Your task to perform on an android device: Search for "logitech g pro" on bestbuy.com, select the first entry, add it to the cart, then select checkout. Image 0: 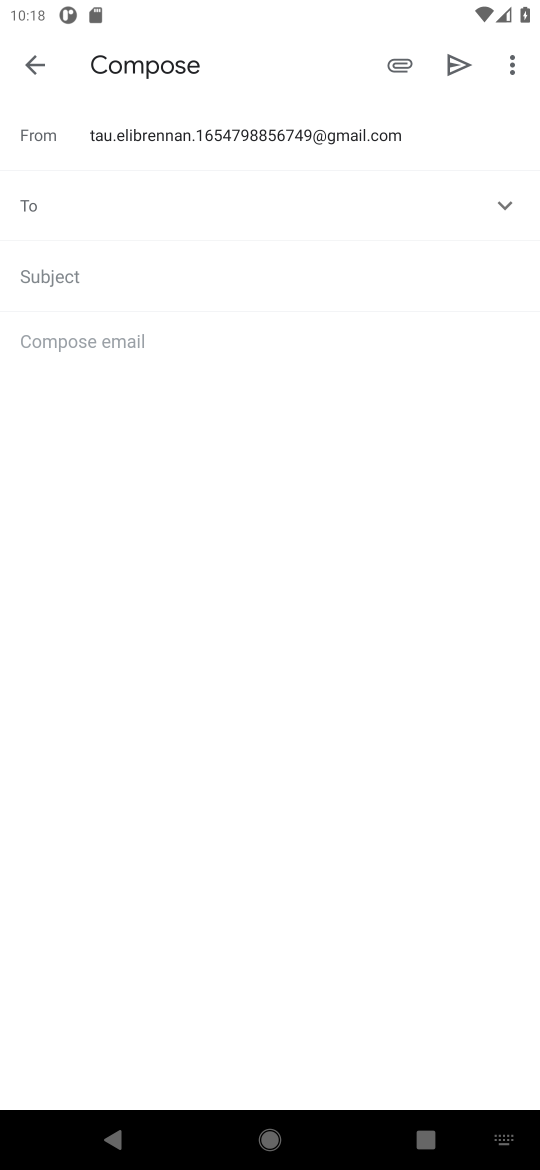
Step 0: press home button
Your task to perform on an android device: Search for "logitech g pro" on bestbuy.com, select the first entry, add it to the cart, then select checkout. Image 1: 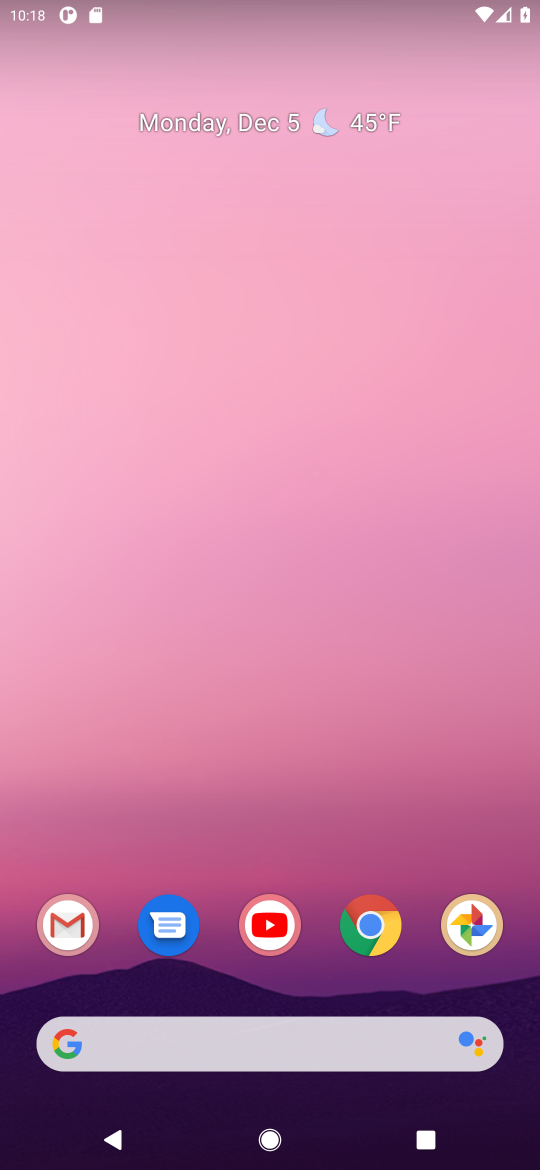
Step 1: click (371, 919)
Your task to perform on an android device: Search for "logitech g pro" on bestbuy.com, select the first entry, add it to the cart, then select checkout. Image 2: 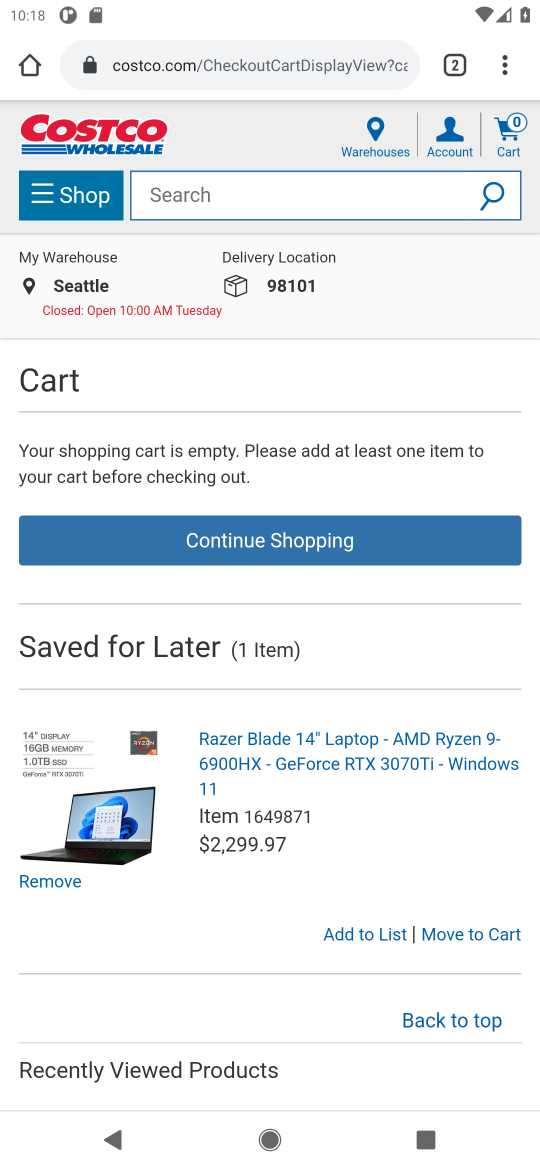
Step 2: click (199, 58)
Your task to perform on an android device: Search for "logitech g pro" on bestbuy.com, select the first entry, add it to the cart, then select checkout. Image 3: 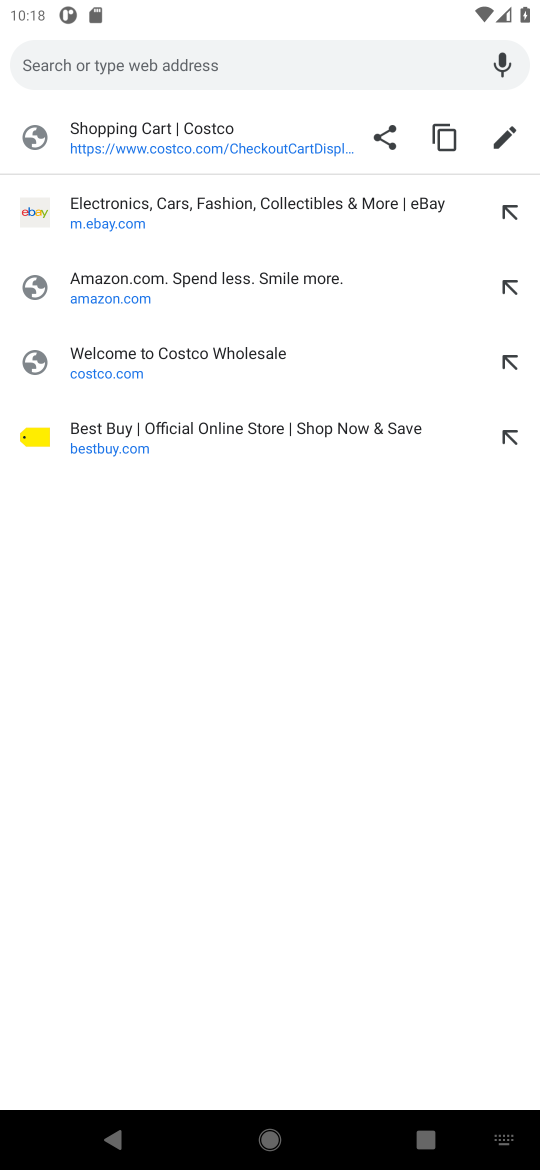
Step 3: click (88, 440)
Your task to perform on an android device: Search for "logitech g pro" on bestbuy.com, select the first entry, add it to the cart, then select checkout. Image 4: 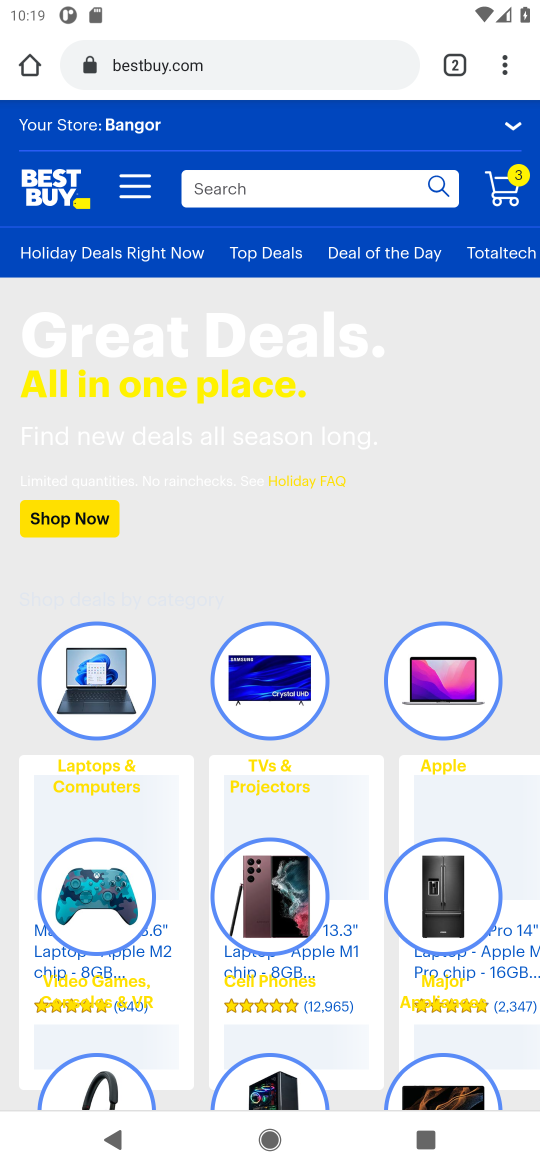
Step 4: click (269, 190)
Your task to perform on an android device: Search for "logitech g pro" on bestbuy.com, select the first entry, add it to the cart, then select checkout. Image 5: 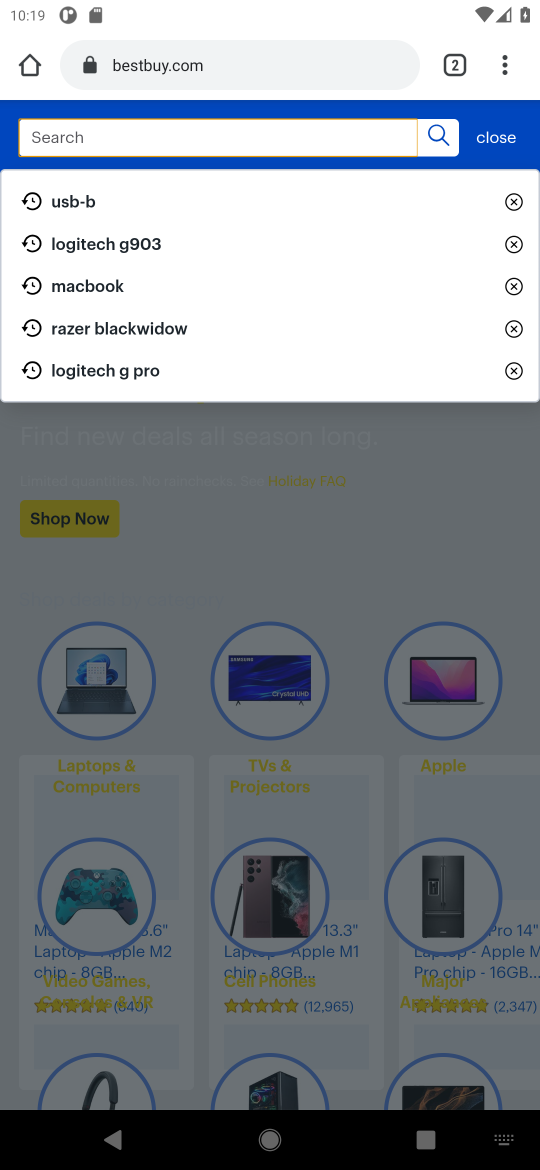
Step 5: type "logitech g pro"
Your task to perform on an android device: Search for "logitech g pro" on bestbuy.com, select the first entry, add it to the cart, then select checkout. Image 6: 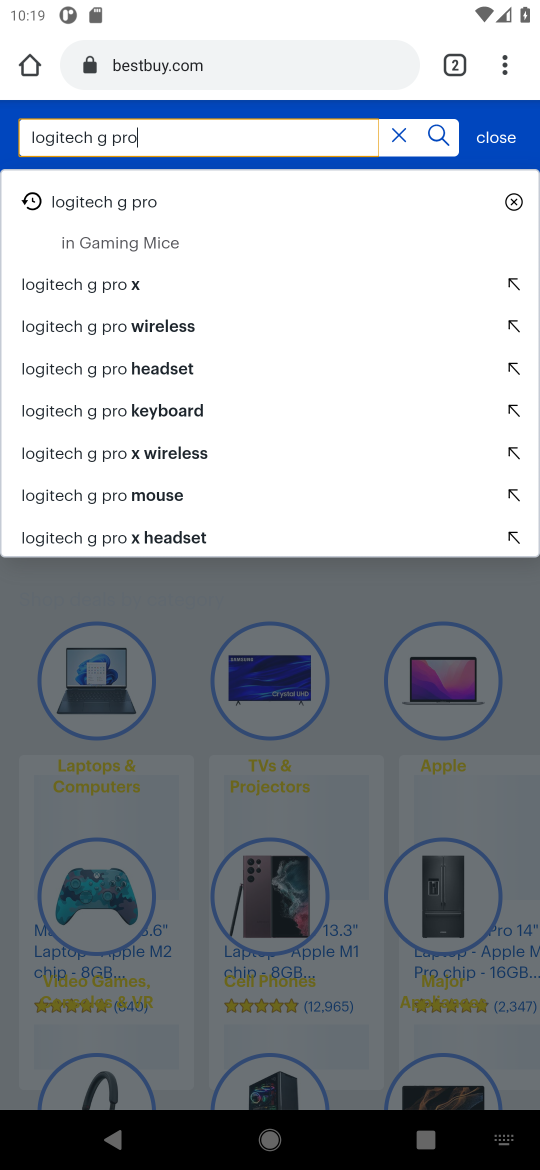
Step 6: click (117, 204)
Your task to perform on an android device: Search for "logitech g pro" on bestbuy.com, select the first entry, add it to the cart, then select checkout. Image 7: 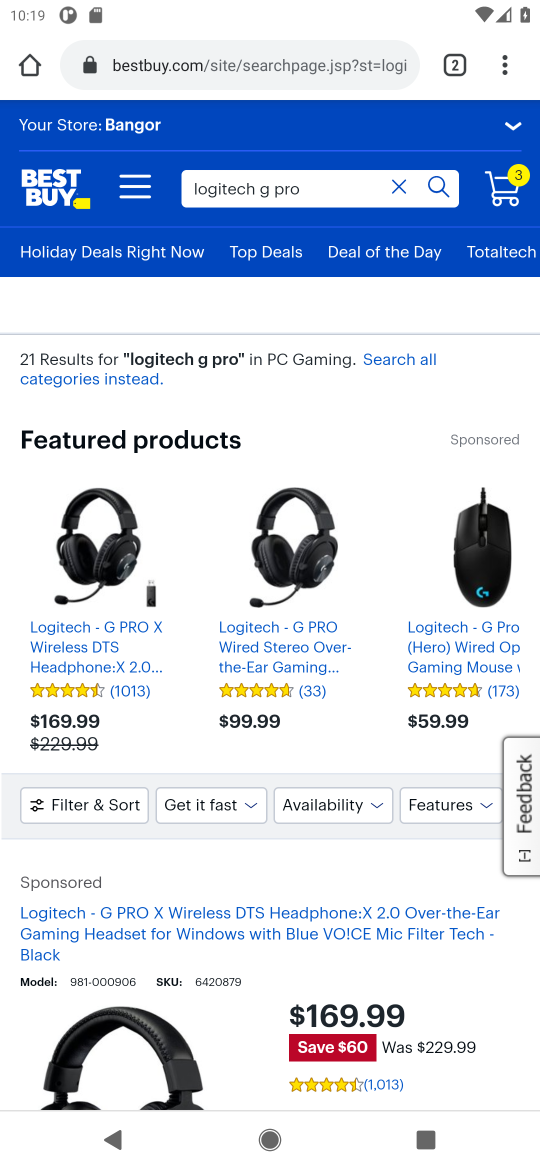
Step 7: drag from (186, 690) to (194, 361)
Your task to perform on an android device: Search for "logitech g pro" on bestbuy.com, select the first entry, add it to the cart, then select checkout. Image 8: 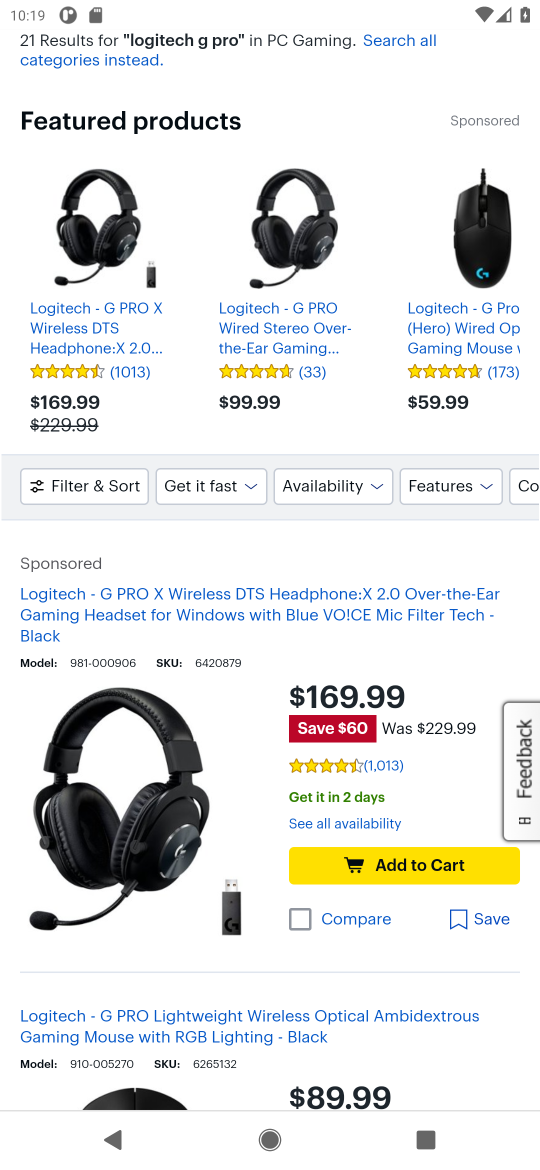
Step 8: click (373, 862)
Your task to perform on an android device: Search for "logitech g pro" on bestbuy.com, select the first entry, add it to the cart, then select checkout. Image 9: 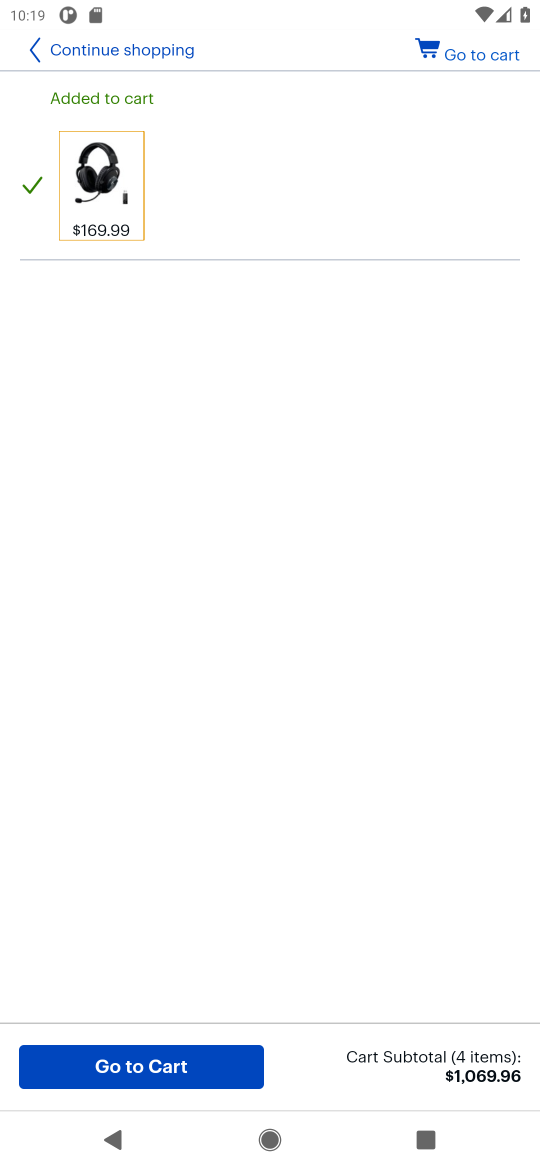
Step 9: click (471, 52)
Your task to perform on an android device: Search for "logitech g pro" on bestbuy.com, select the first entry, add it to the cart, then select checkout. Image 10: 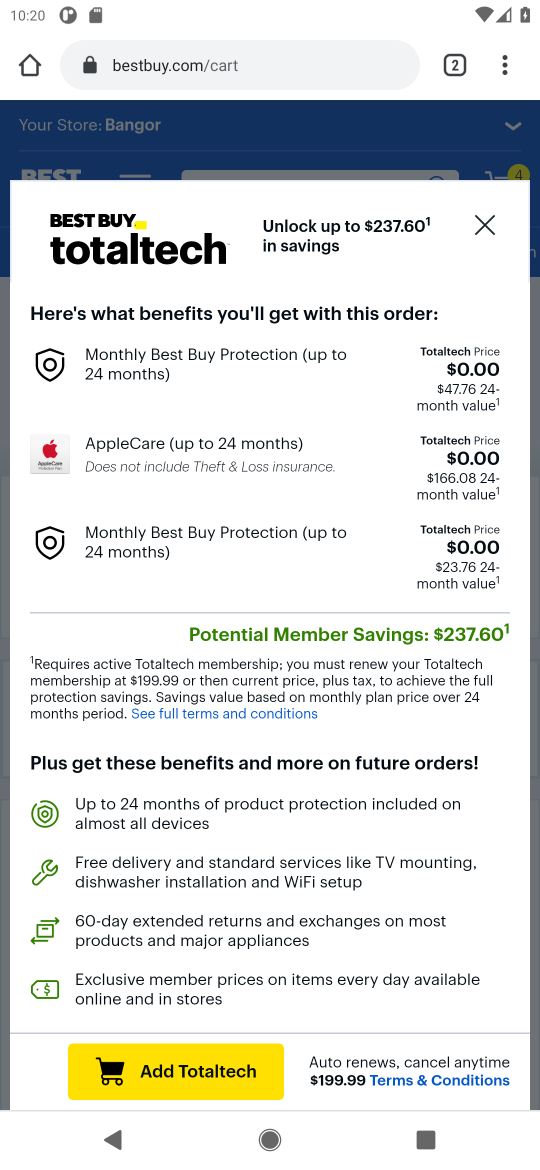
Step 10: click (486, 224)
Your task to perform on an android device: Search for "logitech g pro" on bestbuy.com, select the first entry, add it to the cart, then select checkout. Image 11: 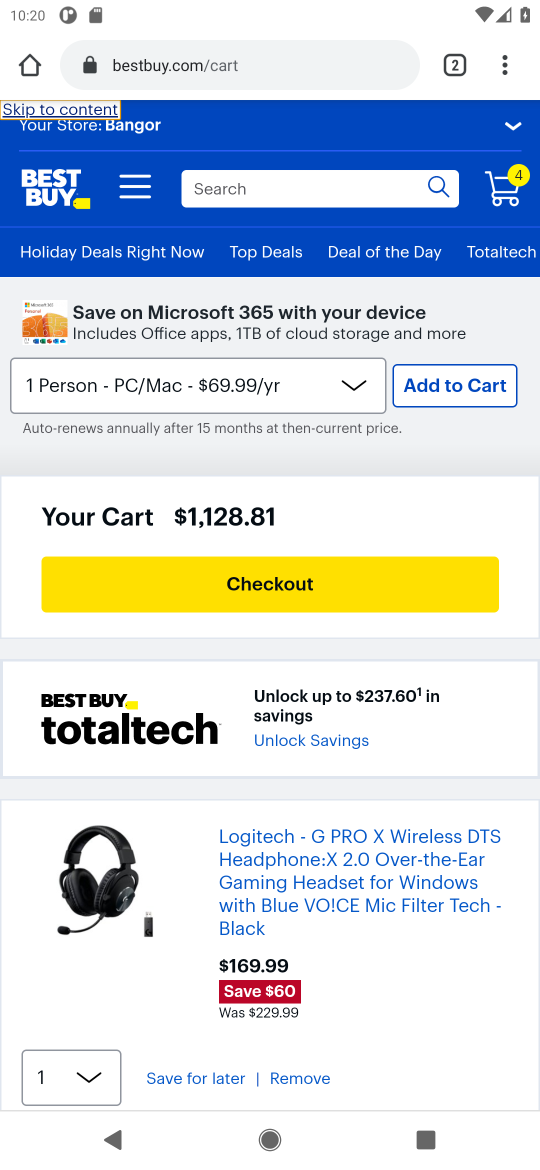
Step 11: click (240, 587)
Your task to perform on an android device: Search for "logitech g pro" on bestbuy.com, select the first entry, add it to the cart, then select checkout. Image 12: 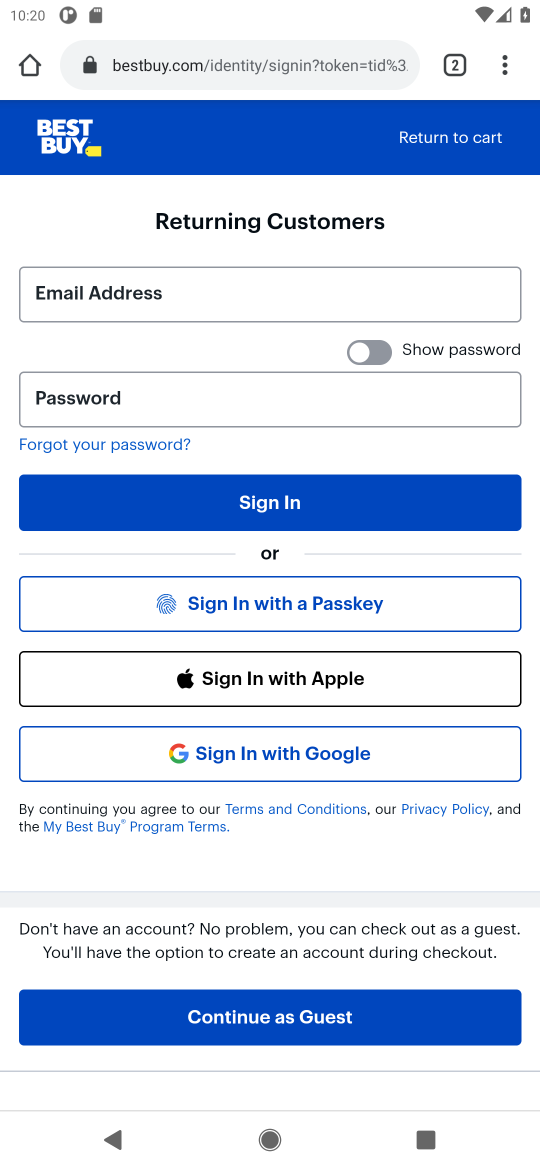
Step 12: task complete